Your task to perform on an android device: set an alarm Image 0: 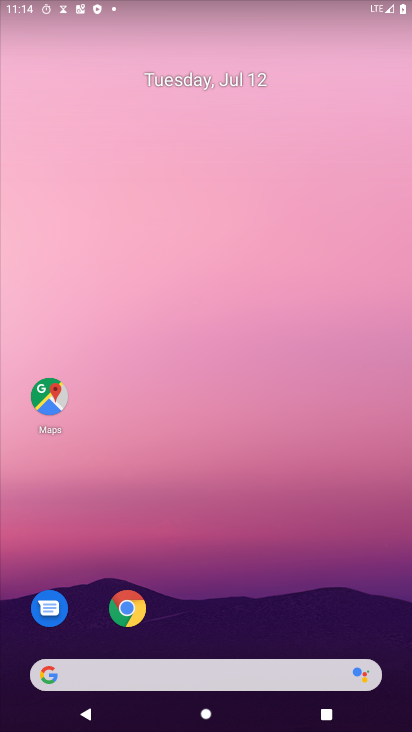
Step 0: drag from (243, 613) to (262, 214)
Your task to perform on an android device: set an alarm Image 1: 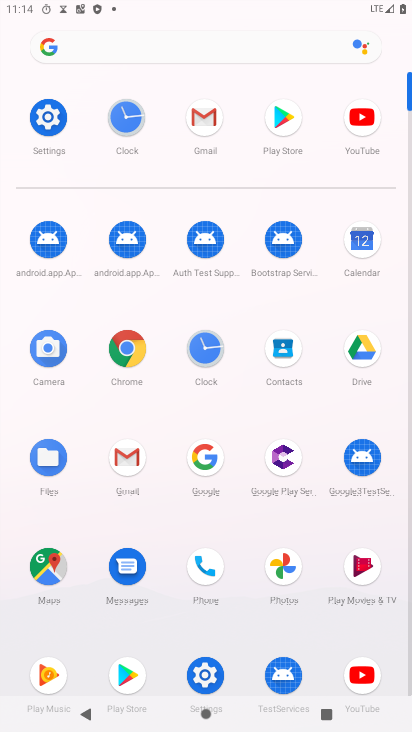
Step 1: click (125, 124)
Your task to perform on an android device: set an alarm Image 2: 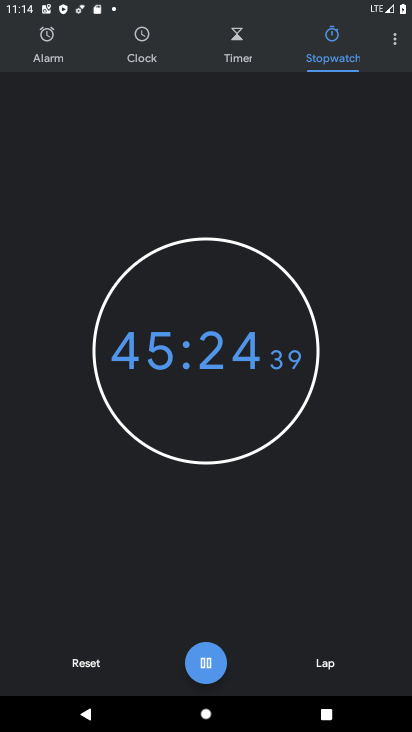
Step 2: click (53, 42)
Your task to perform on an android device: set an alarm Image 3: 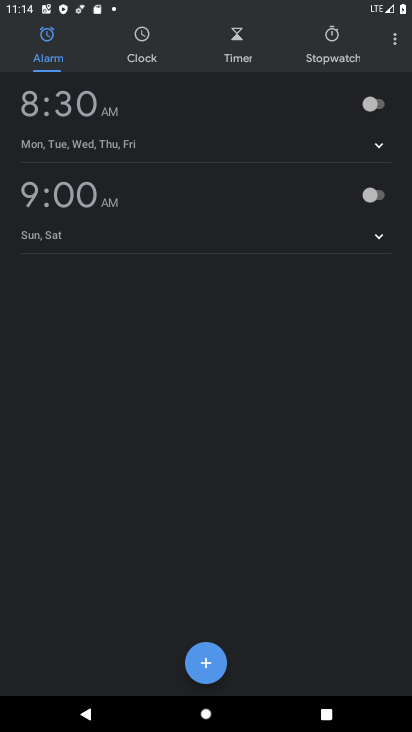
Step 3: click (216, 661)
Your task to perform on an android device: set an alarm Image 4: 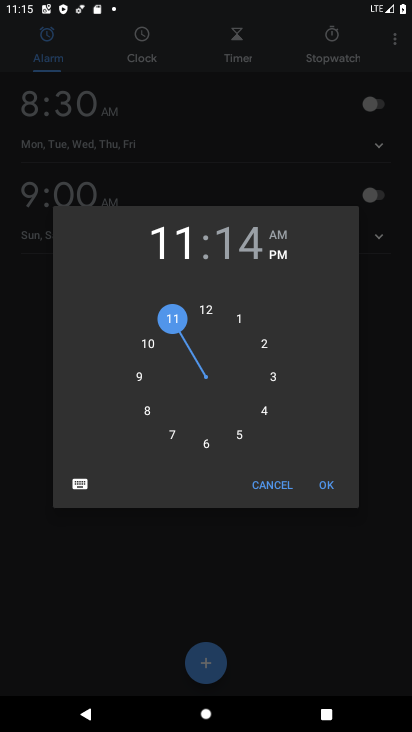
Step 4: click (324, 483)
Your task to perform on an android device: set an alarm Image 5: 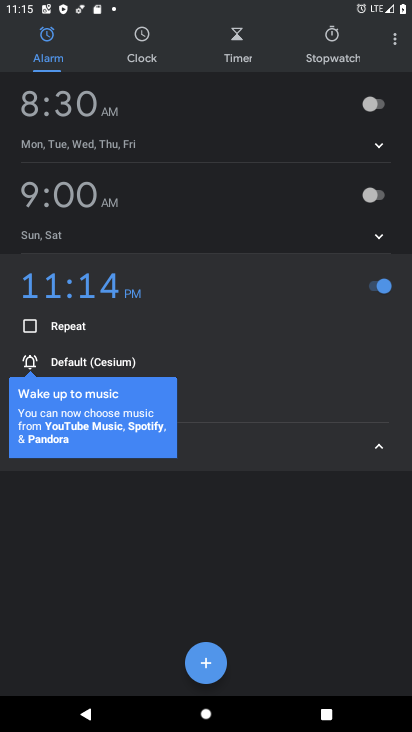
Step 5: click (377, 445)
Your task to perform on an android device: set an alarm Image 6: 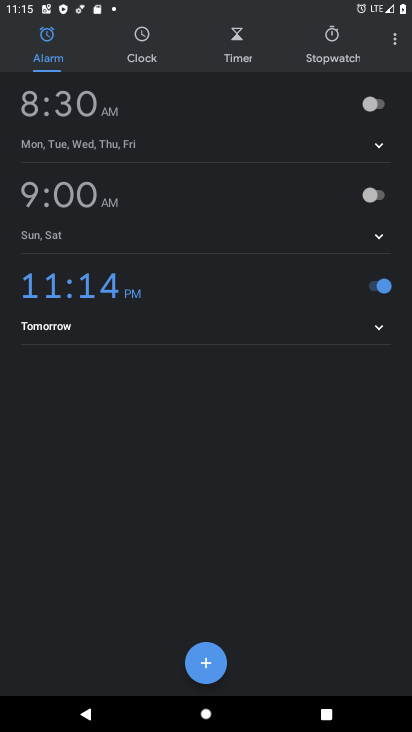
Step 6: task complete